Your task to perform on an android device: turn smart compose on in the gmail app Image 0: 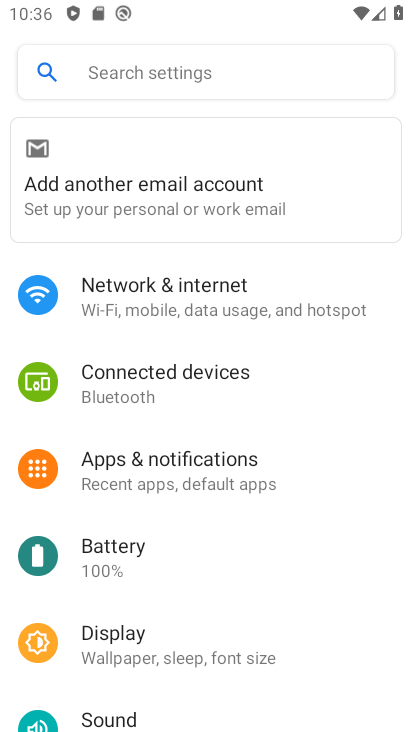
Step 0: press home button
Your task to perform on an android device: turn smart compose on in the gmail app Image 1: 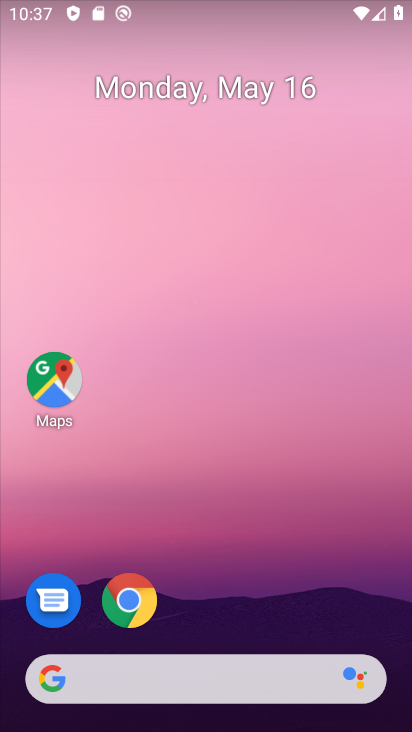
Step 1: drag from (170, 631) to (216, 111)
Your task to perform on an android device: turn smart compose on in the gmail app Image 2: 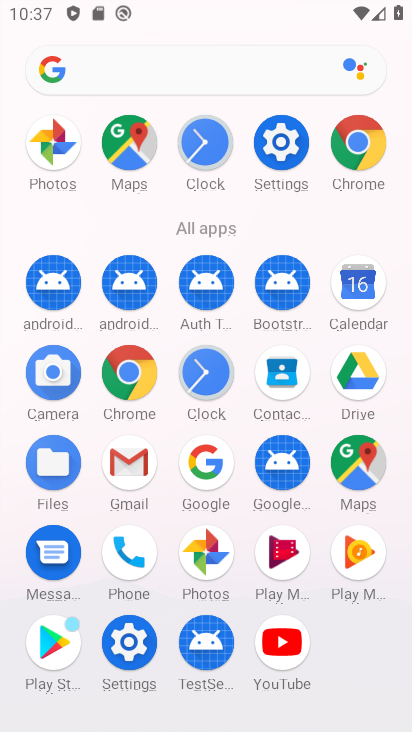
Step 2: click (123, 475)
Your task to perform on an android device: turn smart compose on in the gmail app Image 3: 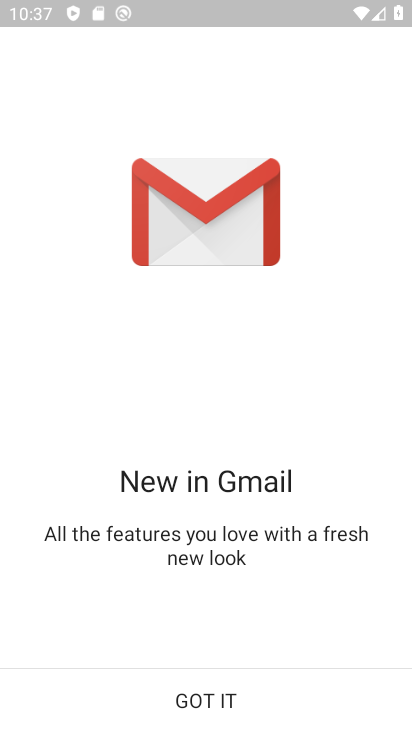
Step 3: click (233, 690)
Your task to perform on an android device: turn smart compose on in the gmail app Image 4: 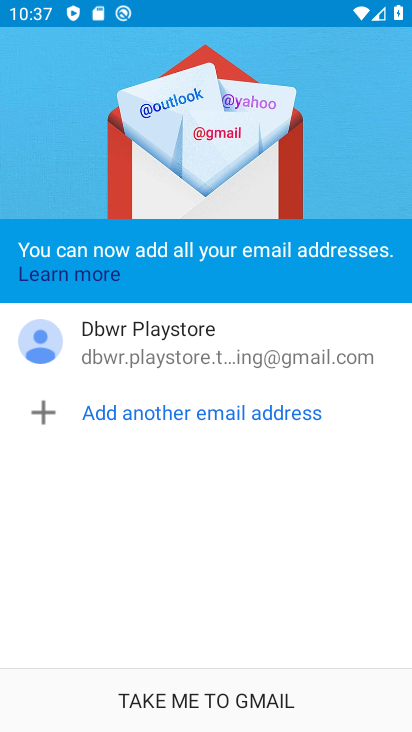
Step 4: click (269, 703)
Your task to perform on an android device: turn smart compose on in the gmail app Image 5: 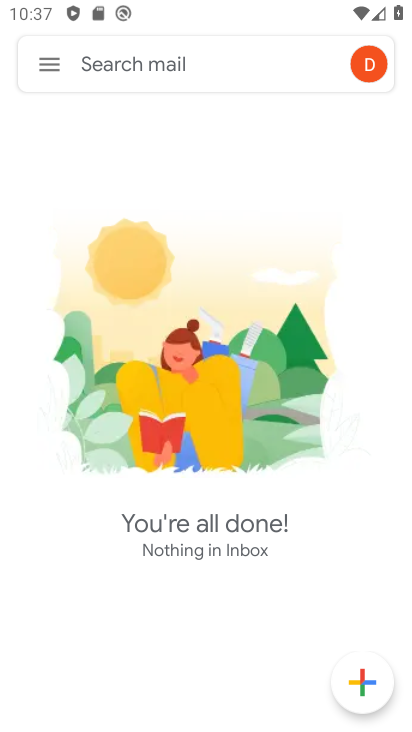
Step 5: click (56, 61)
Your task to perform on an android device: turn smart compose on in the gmail app Image 6: 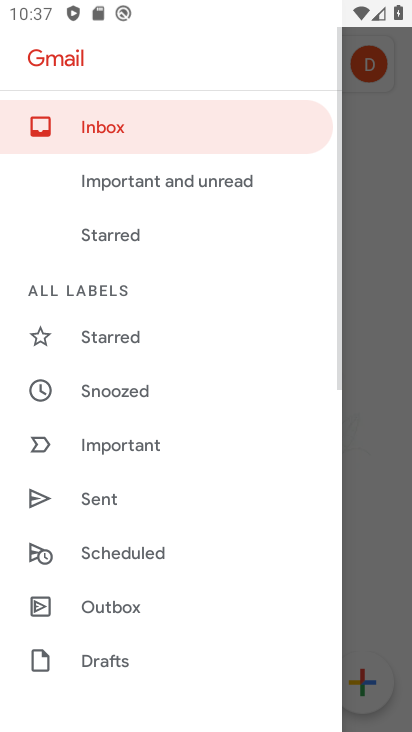
Step 6: click (190, 304)
Your task to perform on an android device: turn smart compose on in the gmail app Image 7: 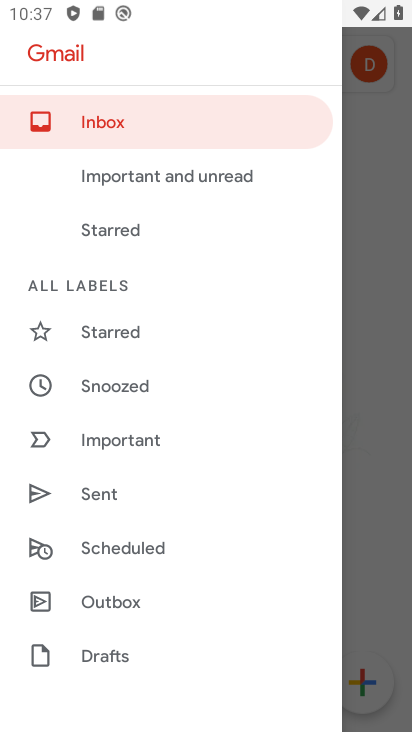
Step 7: drag from (135, 632) to (166, 331)
Your task to perform on an android device: turn smart compose on in the gmail app Image 8: 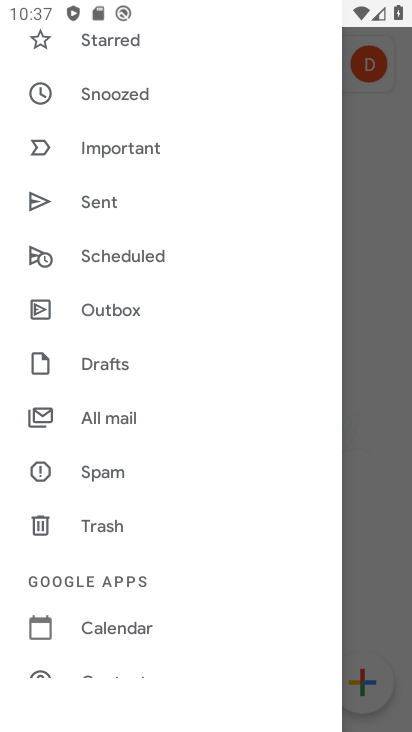
Step 8: drag from (123, 615) to (147, 395)
Your task to perform on an android device: turn smart compose on in the gmail app Image 9: 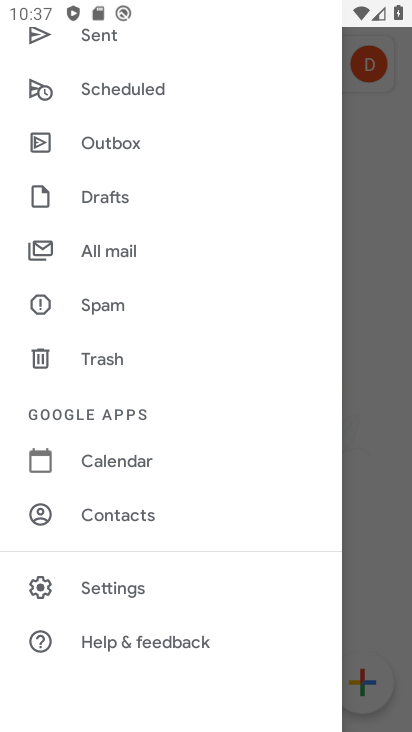
Step 9: click (133, 587)
Your task to perform on an android device: turn smart compose on in the gmail app Image 10: 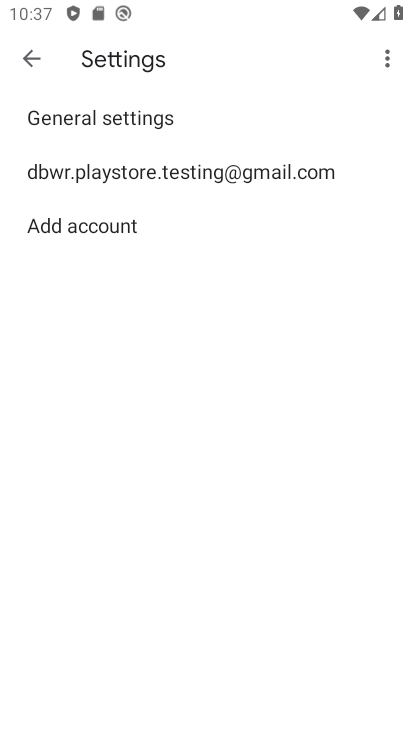
Step 10: click (190, 156)
Your task to perform on an android device: turn smart compose on in the gmail app Image 11: 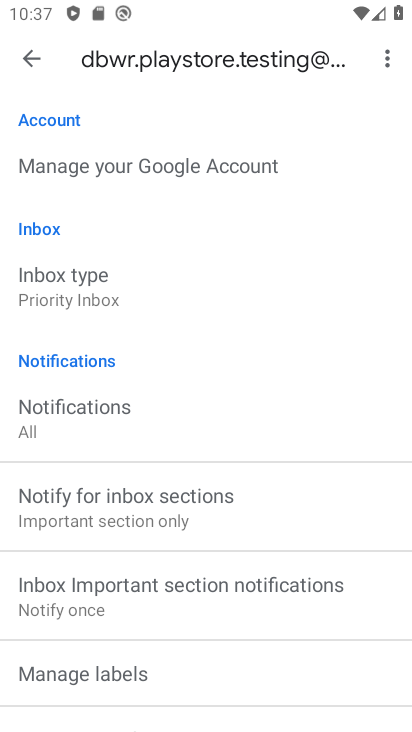
Step 11: task complete